Your task to perform on an android device: refresh tabs in the chrome app Image 0: 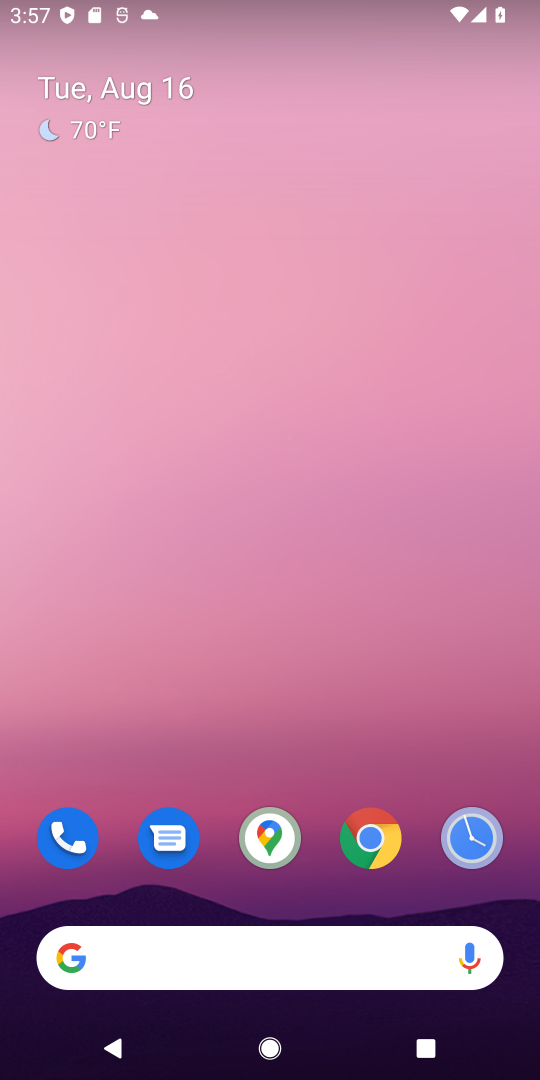
Step 0: click (380, 841)
Your task to perform on an android device: refresh tabs in the chrome app Image 1: 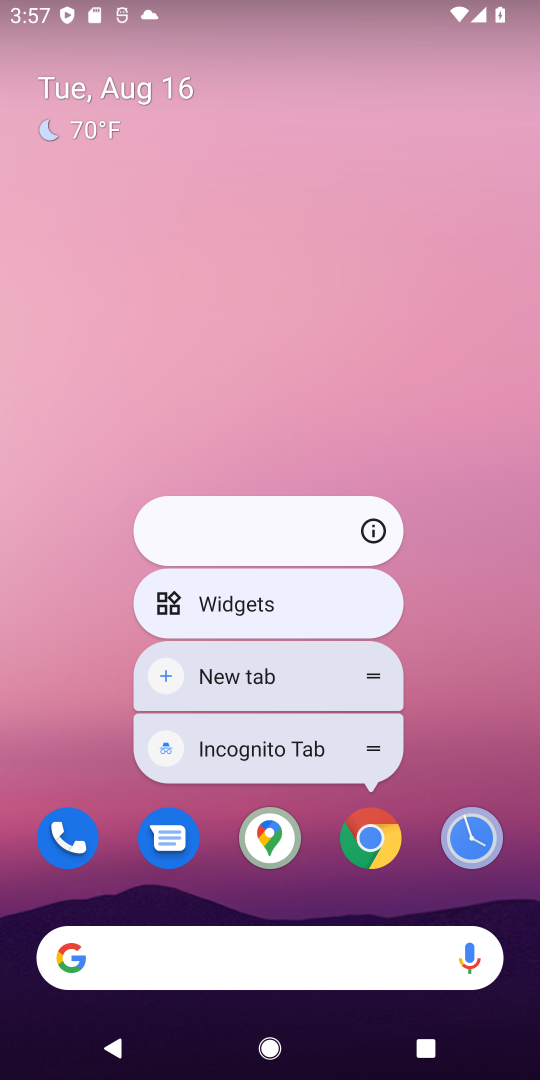
Step 1: click (380, 841)
Your task to perform on an android device: refresh tabs in the chrome app Image 2: 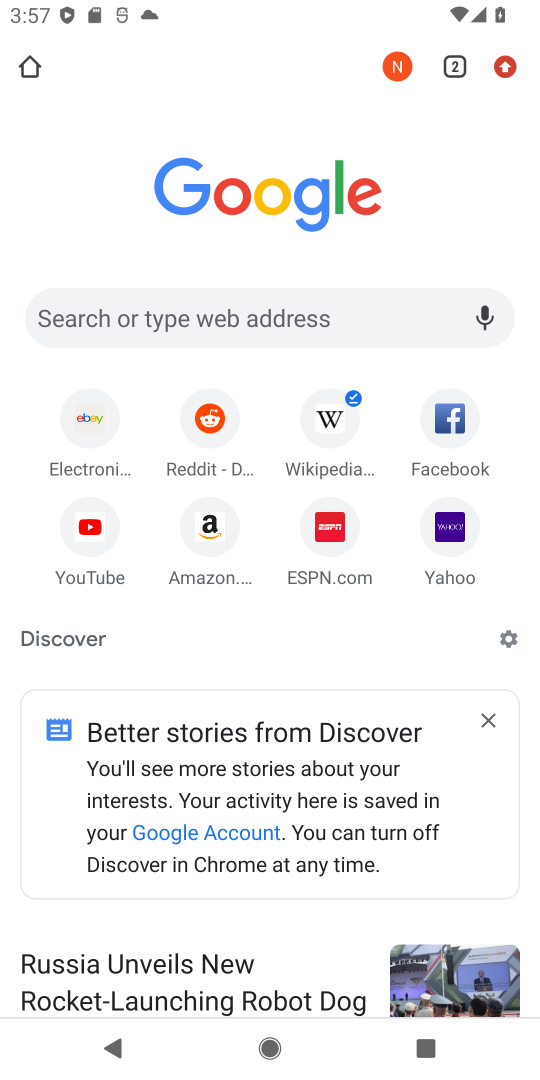
Step 2: click (498, 65)
Your task to perform on an android device: refresh tabs in the chrome app Image 3: 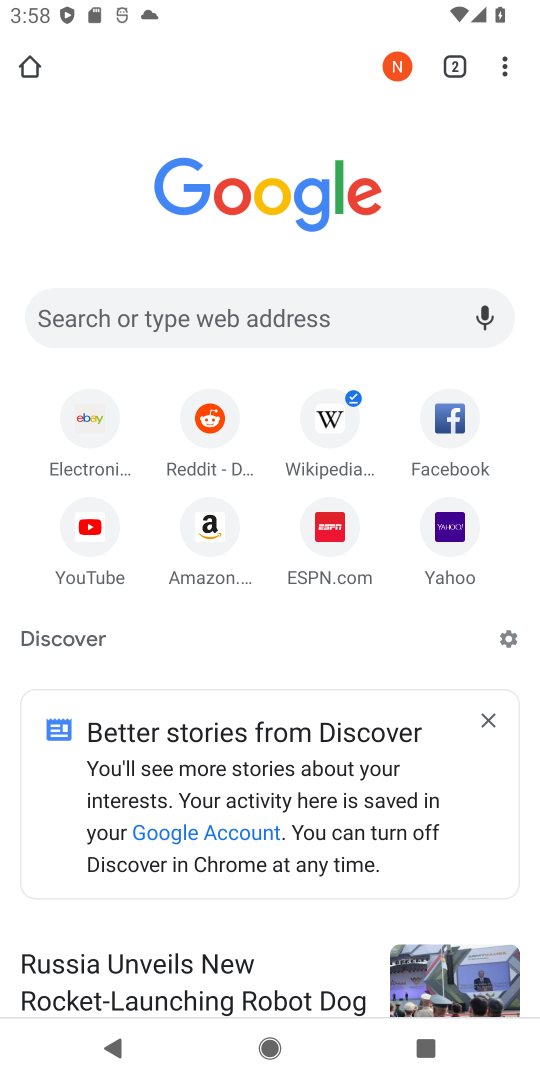
Step 3: task complete